Your task to perform on an android device: Open Google Chrome and open the bookmarks view Image 0: 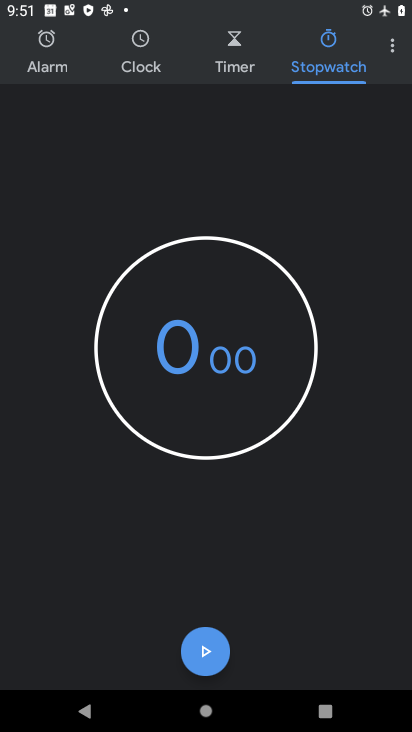
Step 0: press home button
Your task to perform on an android device: Open Google Chrome and open the bookmarks view Image 1: 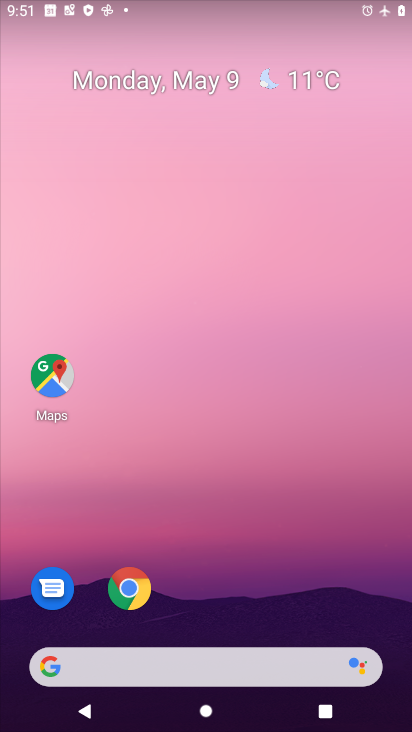
Step 1: drag from (319, 591) to (288, 97)
Your task to perform on an android device: Open Google Chrome and open the bookmarks view Image 2: 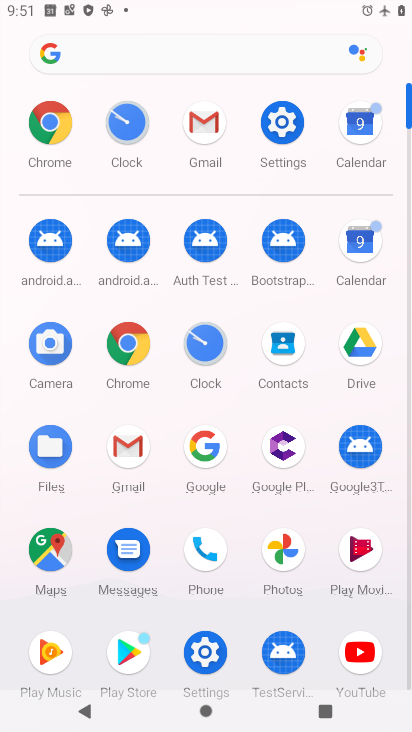
Step 2: click (138, 349)
Your task to perform on an android device: Open Google Chrome and open the bookmarks view Image 3: 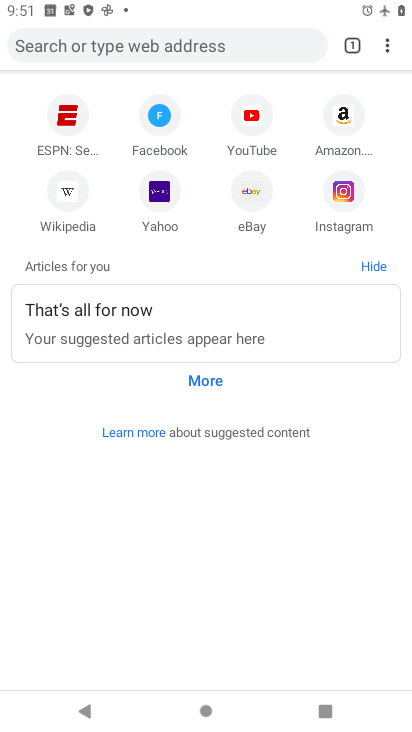
Step 3: click (386, 42)
Your task to perform on an android device: Open Google Chrome and open the bookmarks view Image 4: 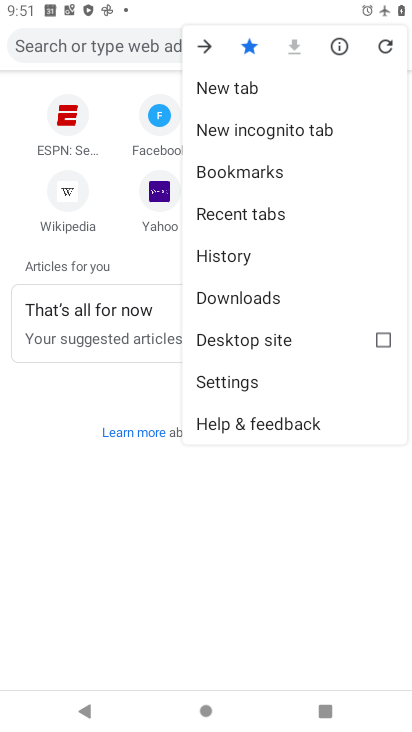
Step 4: click (258, 172)
Your task to perform on an android device: Open Google Chrome and open the bookmarks view Image 5: 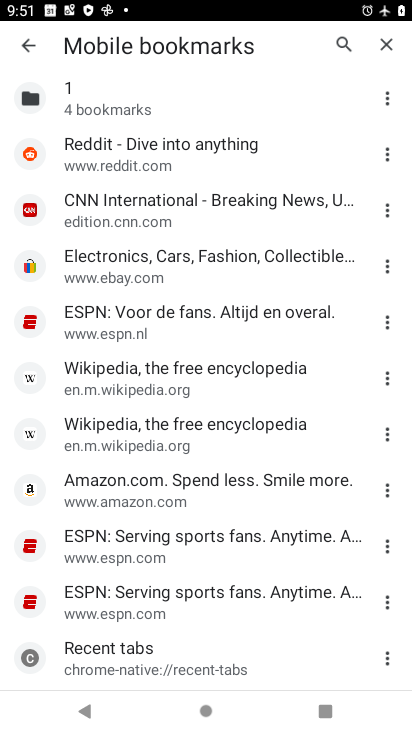
Step 5: task complete